Your task to perform on an android device: open app "Nova Launcher" Image 0: 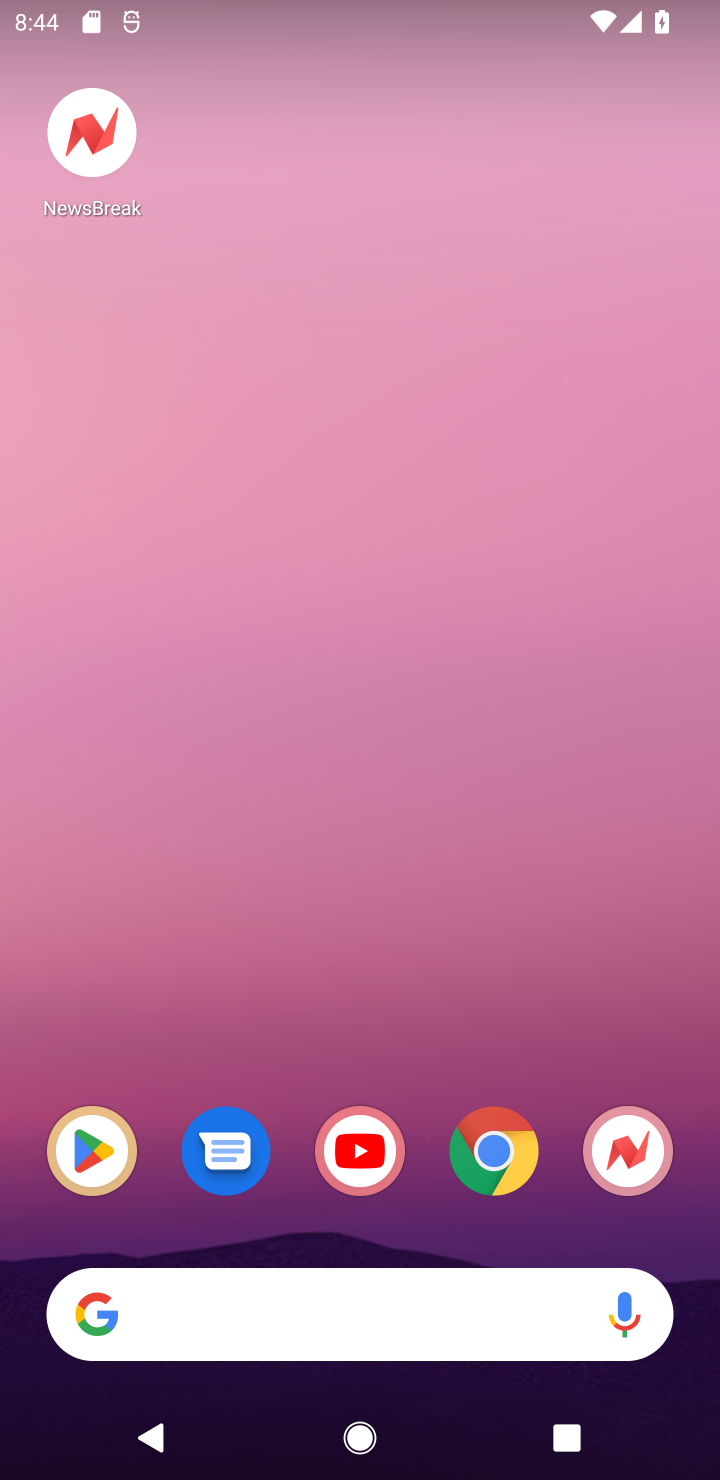
Step 0: click (93, 1147)
Your task to perform on an android device: open app "Nova Launcher" Image 1: 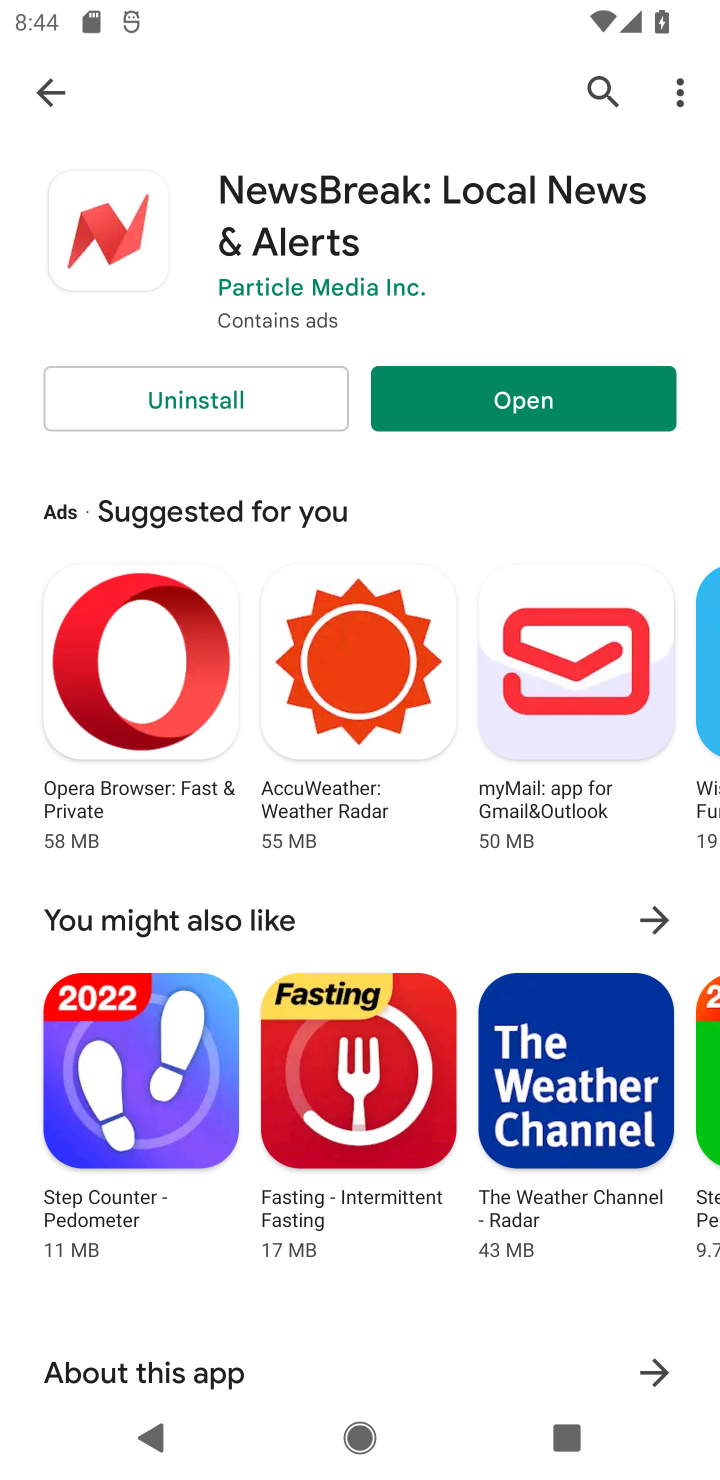
Step 1: click (593, 110)
Your task to perform on an android device: open app "Nova Launcher" Image 2: 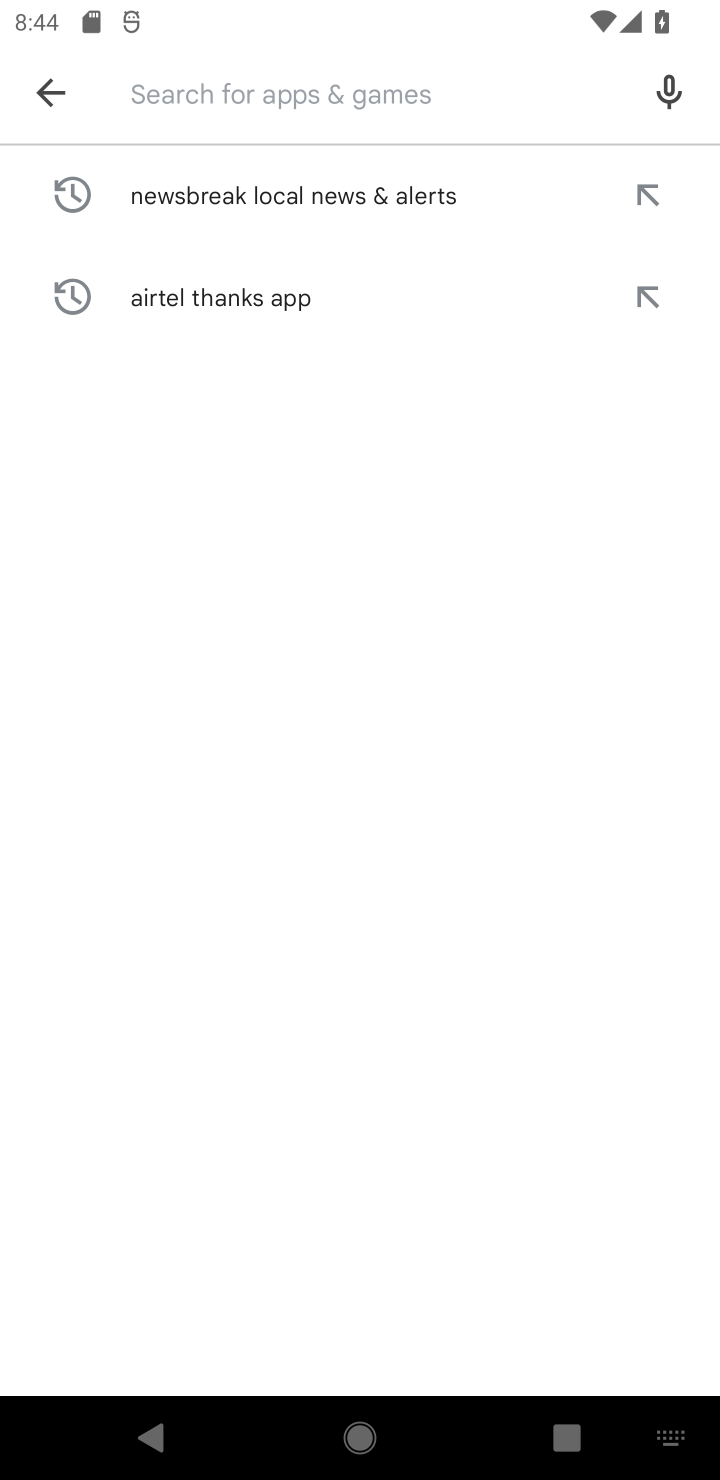
Step 2: click (323, 1470)
Your task to perform on an android device: open app "Nova Launcher" Image 3: 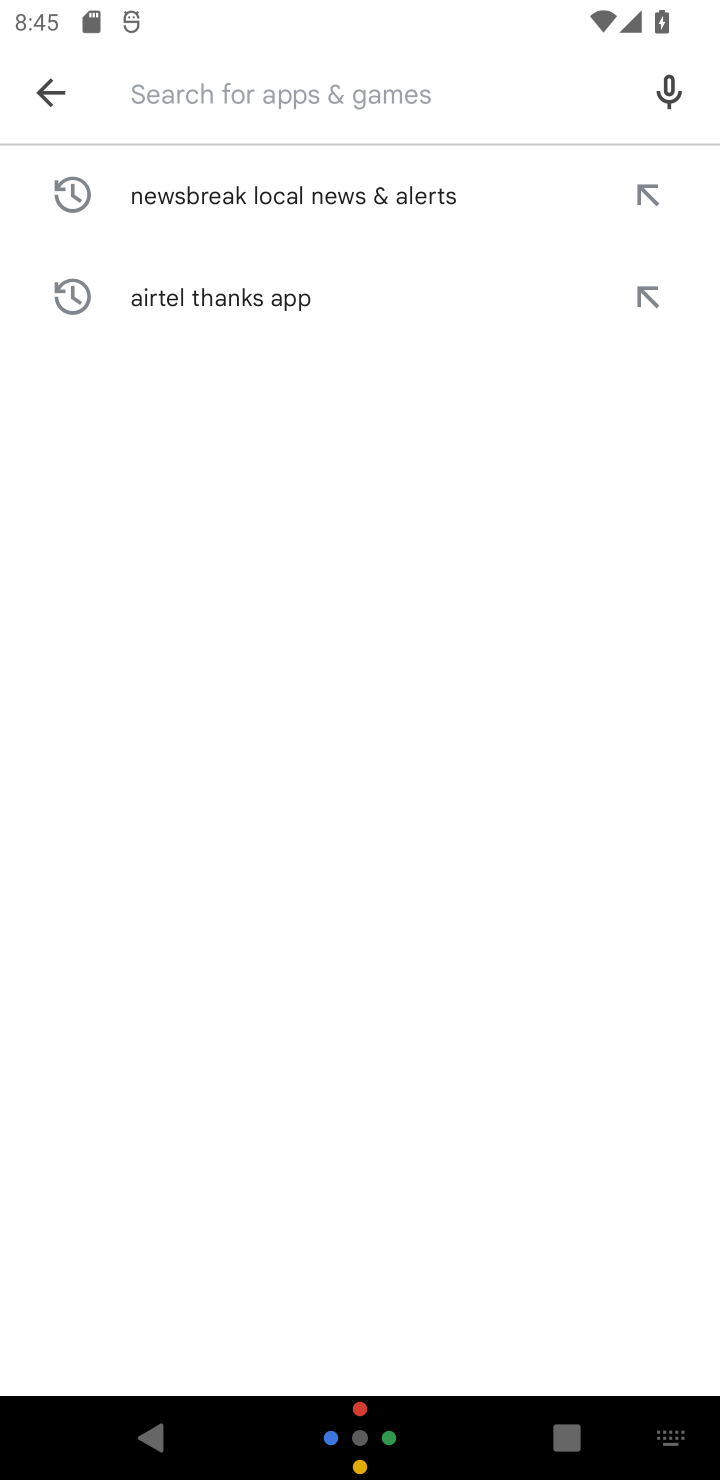
Step 3: type "Nova Launcher"
Your task to perform on an android device: open app "Nova Launcher" Image 4: 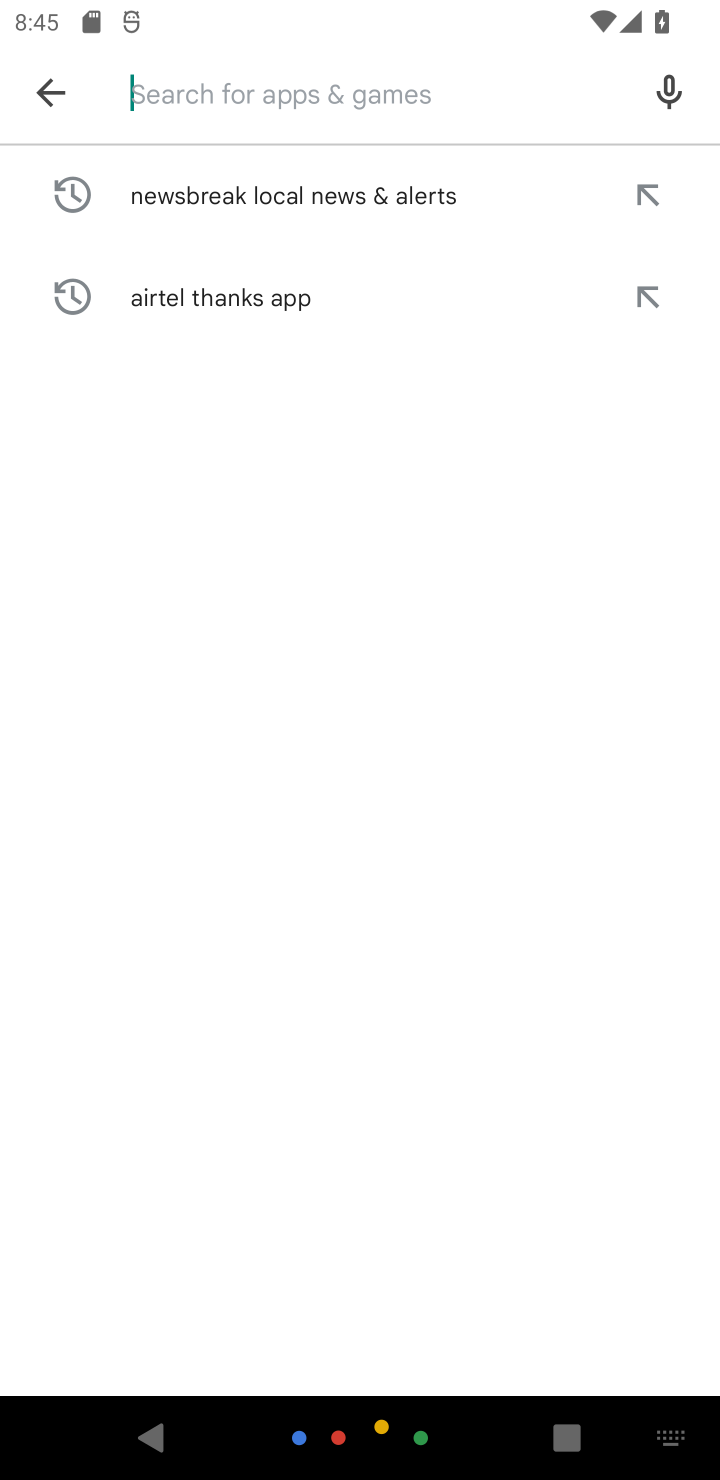
Step 4: click (708, 306)
Your task to perform on an android device: open app "Nova Launcher" Image 5: 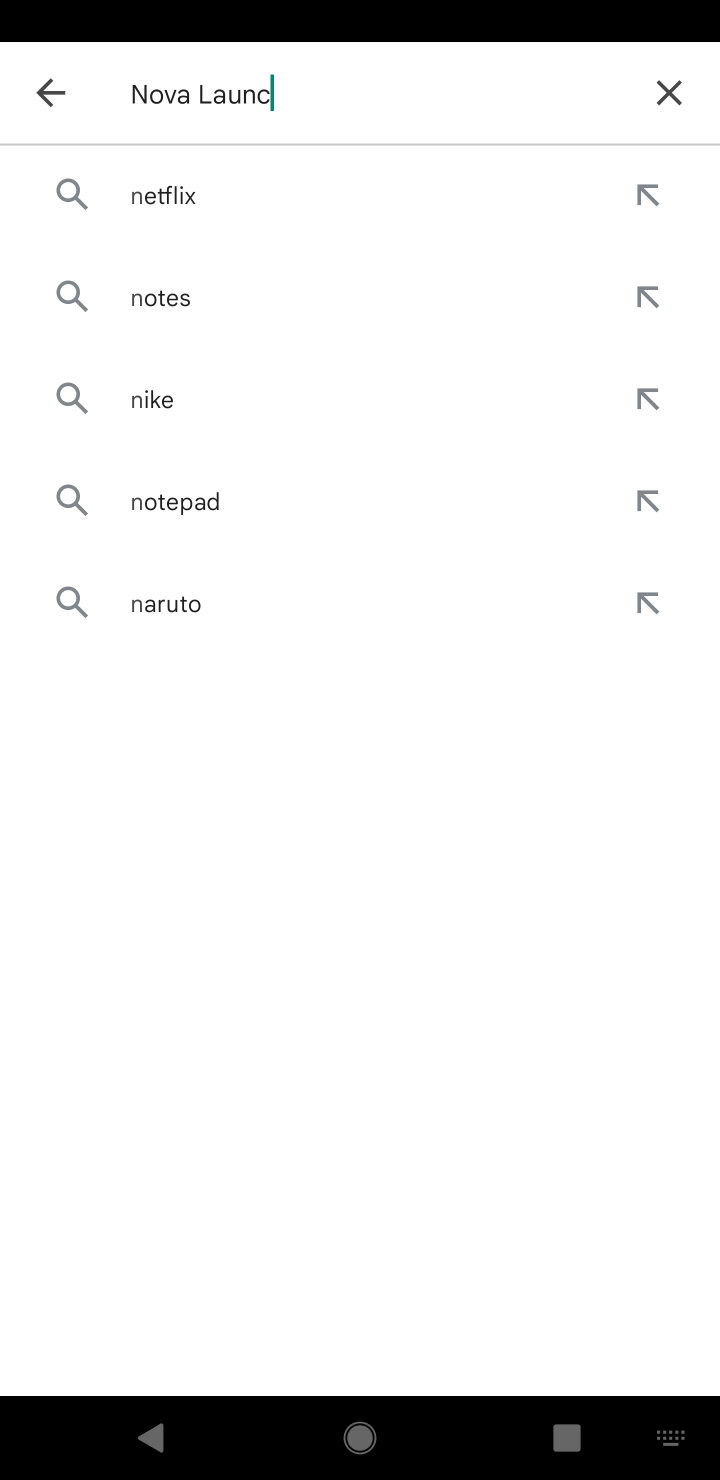
Step 5: type ""
Your task to perform on an android device: open app "Nova Launcher" Image 6: 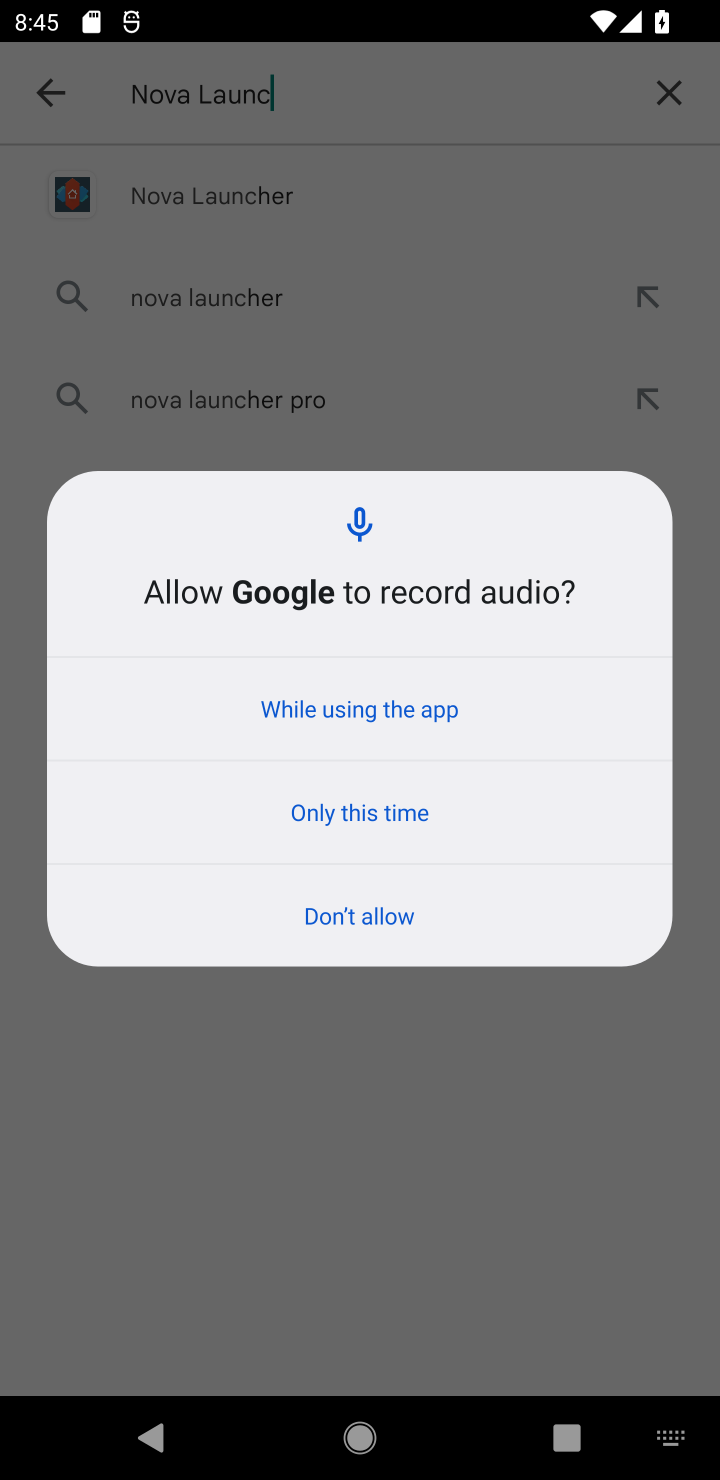
Step 6: click (390, 719)
Your task to perform on an android device: open app "Nova Launcher" Image 7: 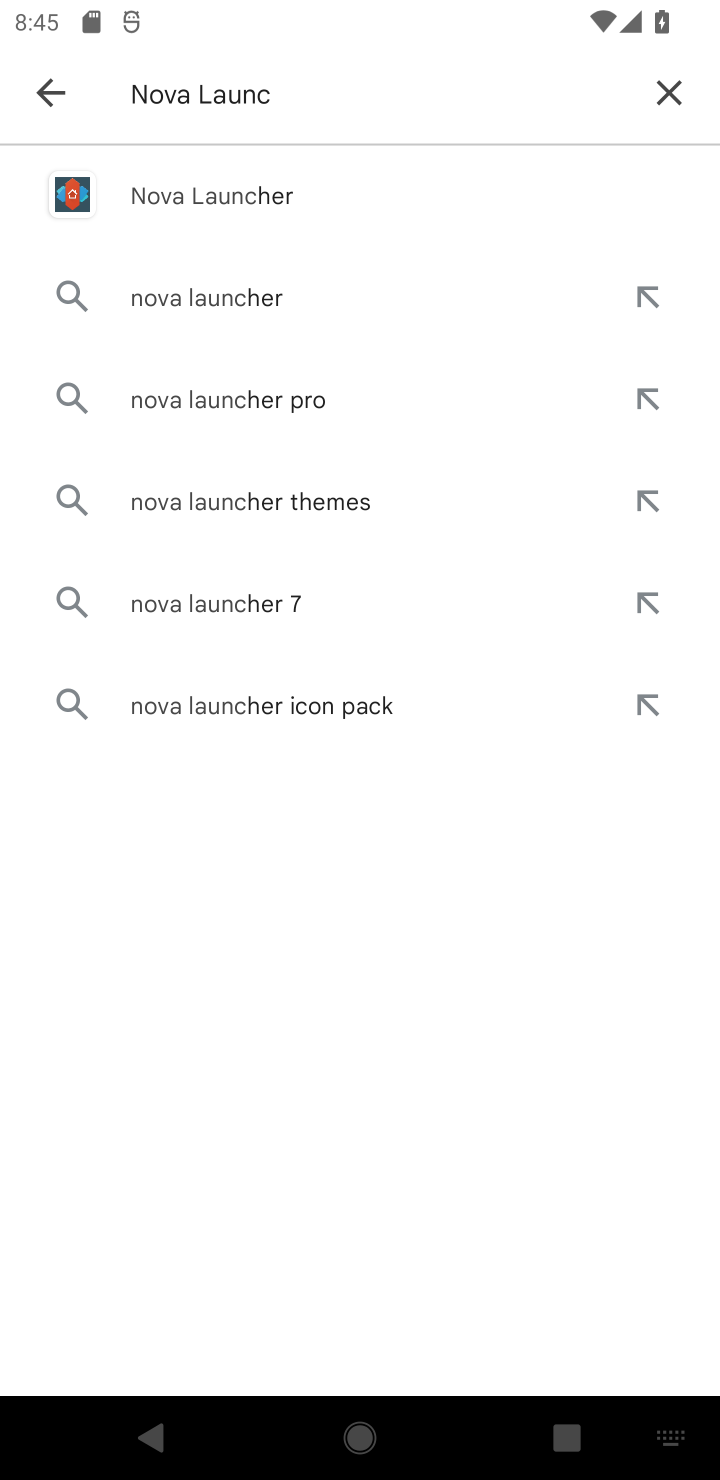
Step 7: click (389, 203)
Your task to perform on an android device: open app "Nova Launcher" Image 8: 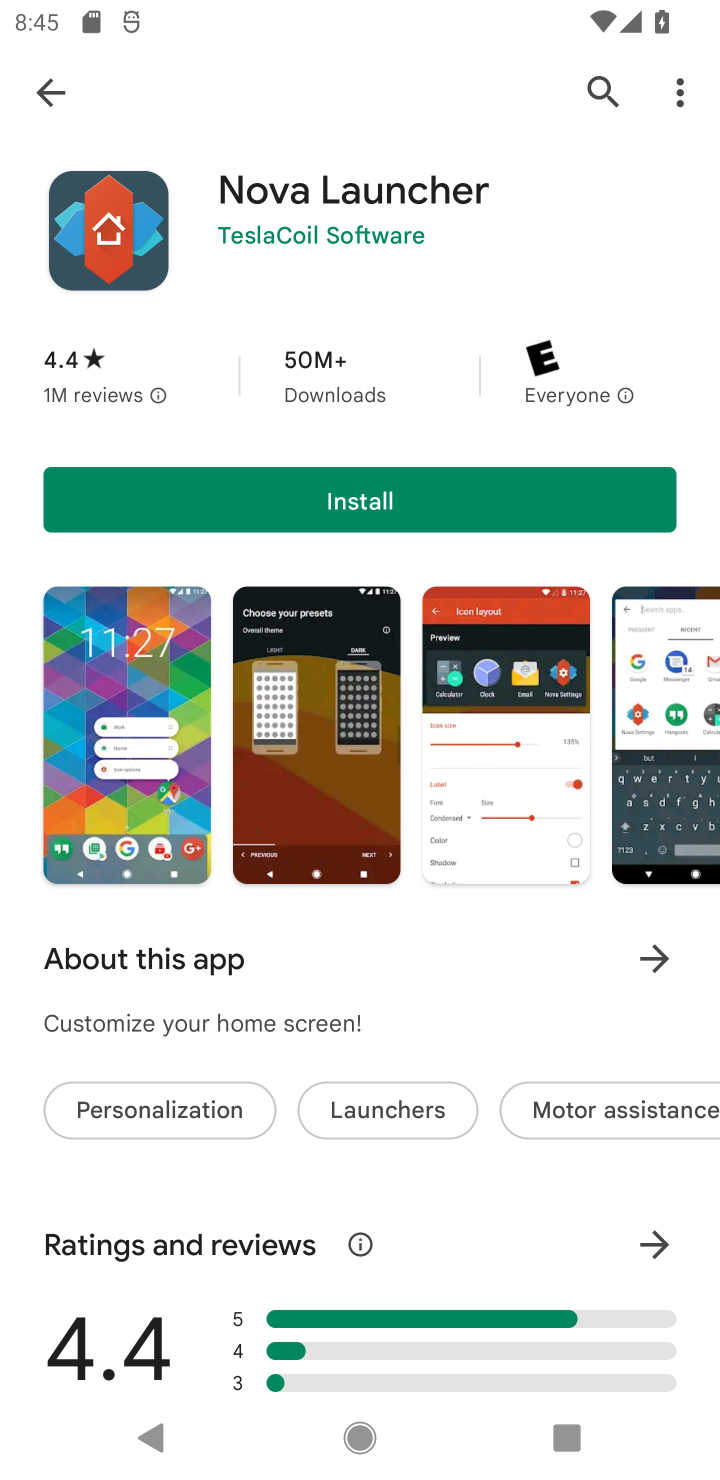
Step 8: task complete